Your task to perform on an android device: What's the weather today? Image 0: 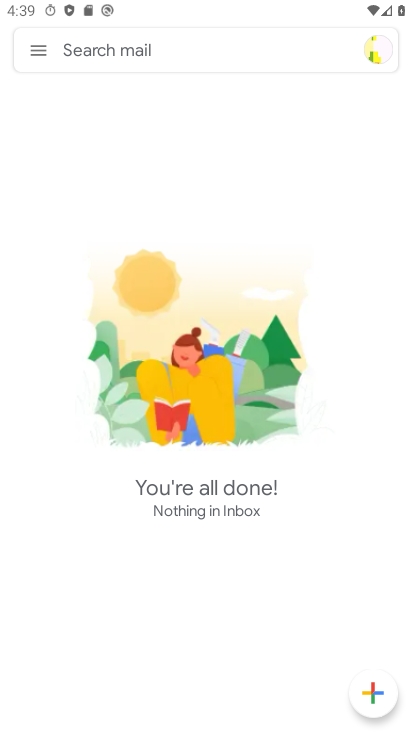
Step 0: press home button
Your task to perform on an android device: What's the weather today? Image 1: 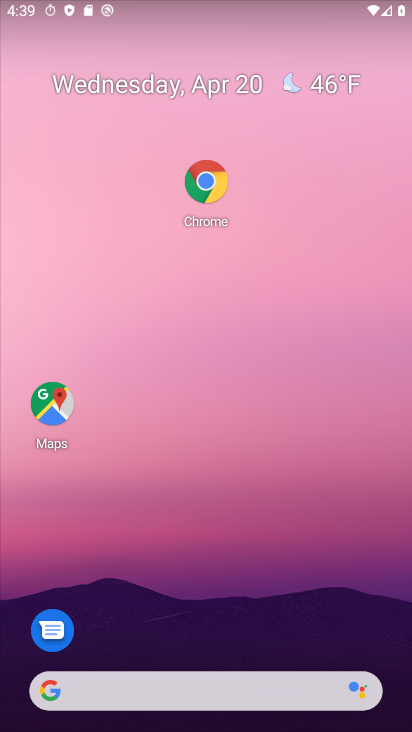
Step 1: drag from (214, 669) to (246, 353)
Your task to perform on an android device: What's the weather today? Image 2: 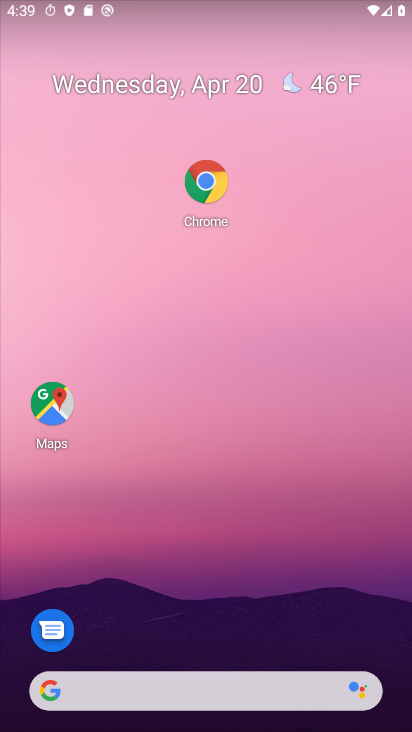
Step 2: drag from (228, 672) to (192, 216)
Your task to perform on an android device: What's the weather today? Image 3: 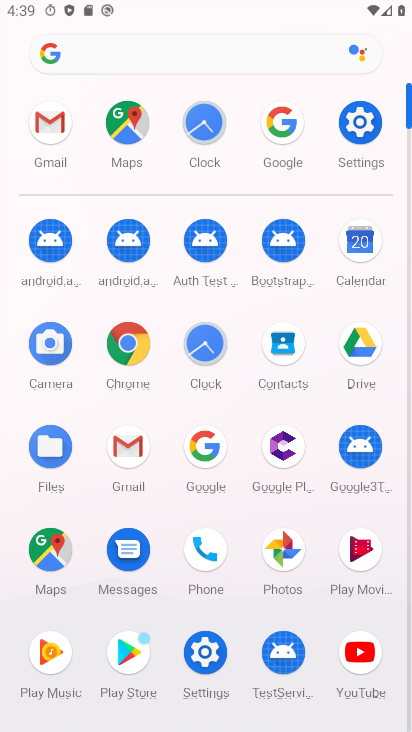
Step 3: click (203, 450)
Your task to perform on an android device: What's the weather today? Image 4: 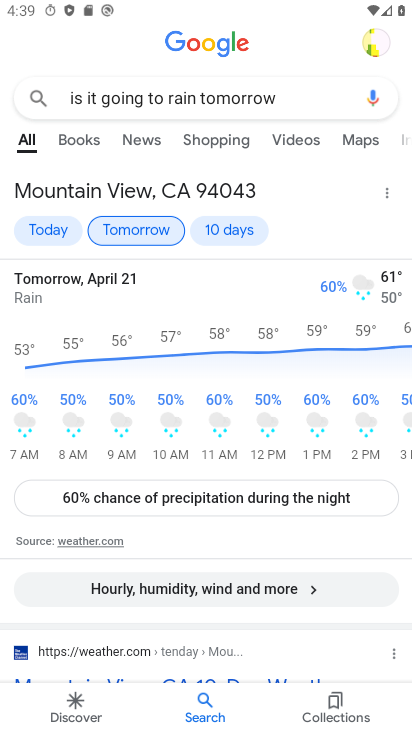
Step 4: click (46, 235)
Your task to perform on an android device: What's the weather today? Image 5: 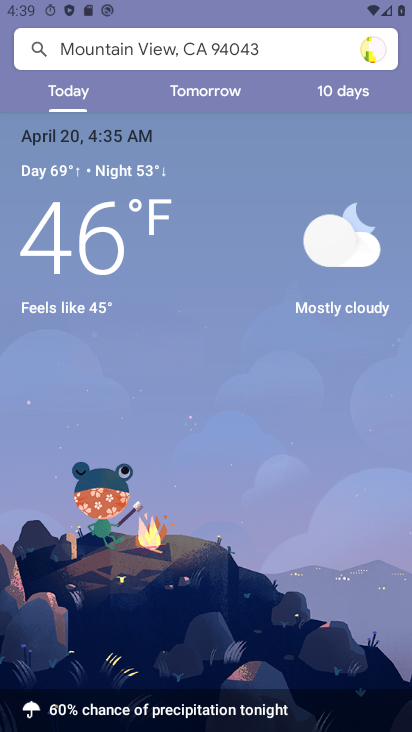
Step 5: task complete